Your task to perform on an android device: turn off priority inbox in the gmail app Image 0: 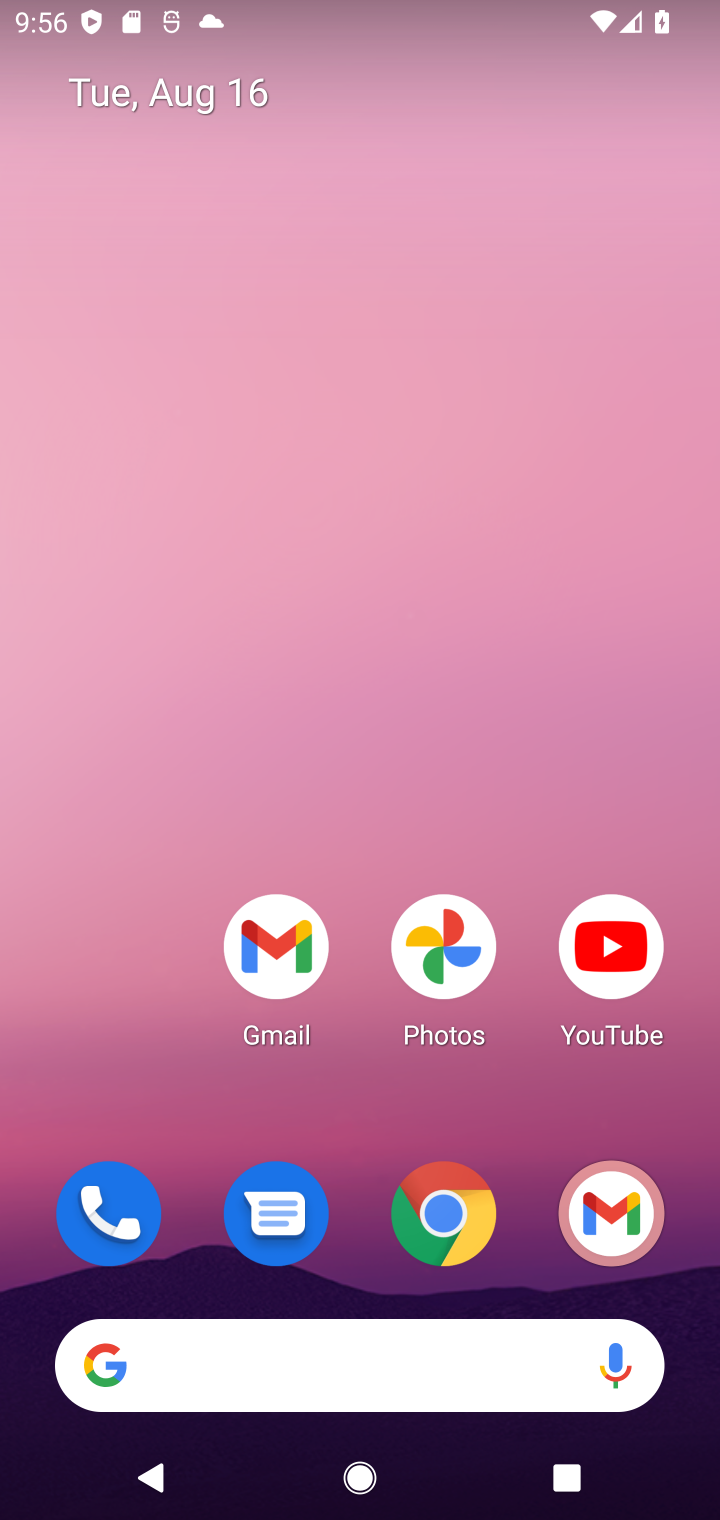
Step 0: drag from (240, 1025) to (242, 548)
Your task to perform on an android device: turn off priority inbox in the gmail app Image 1: 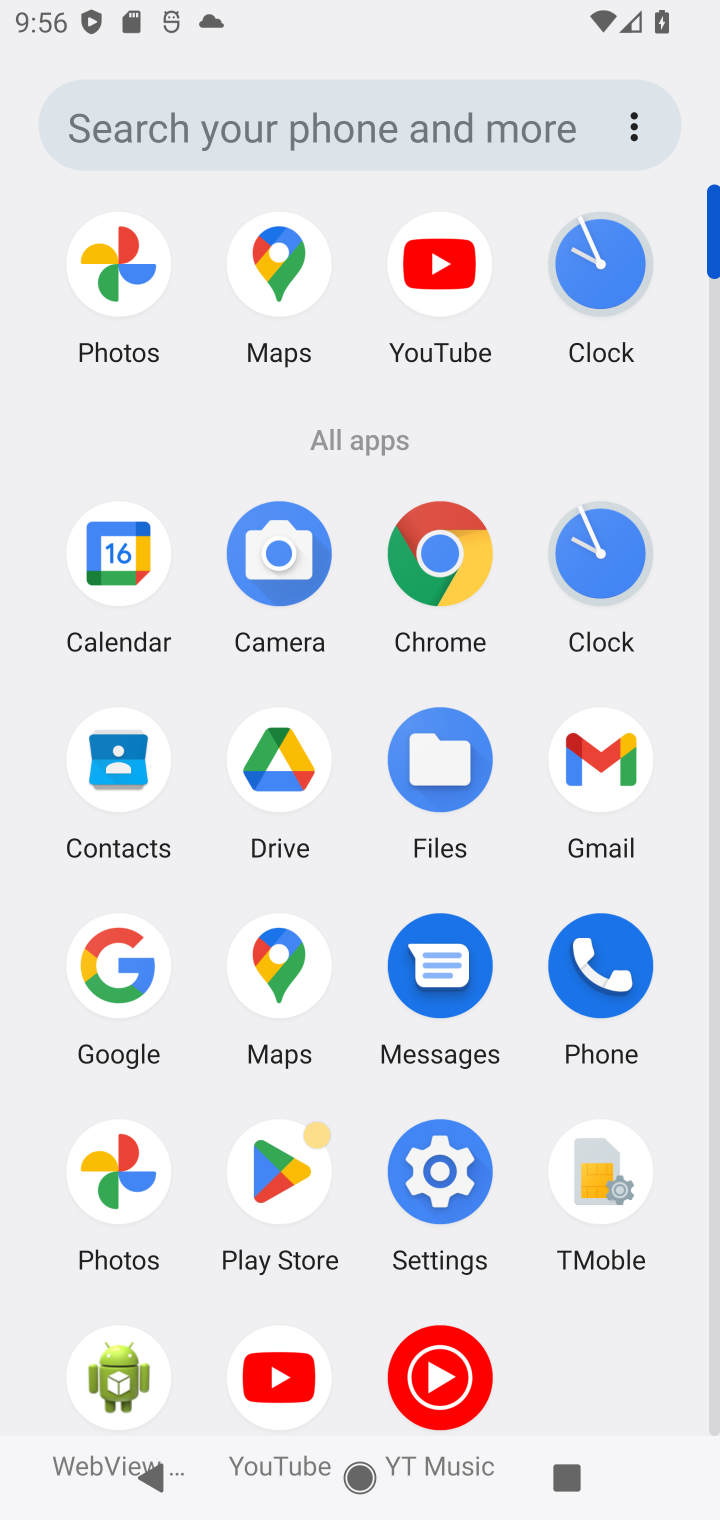
Step 1: click (592, 730)
Your task to perform on an android device: turn off priority inbox in the gmail app Image 2: 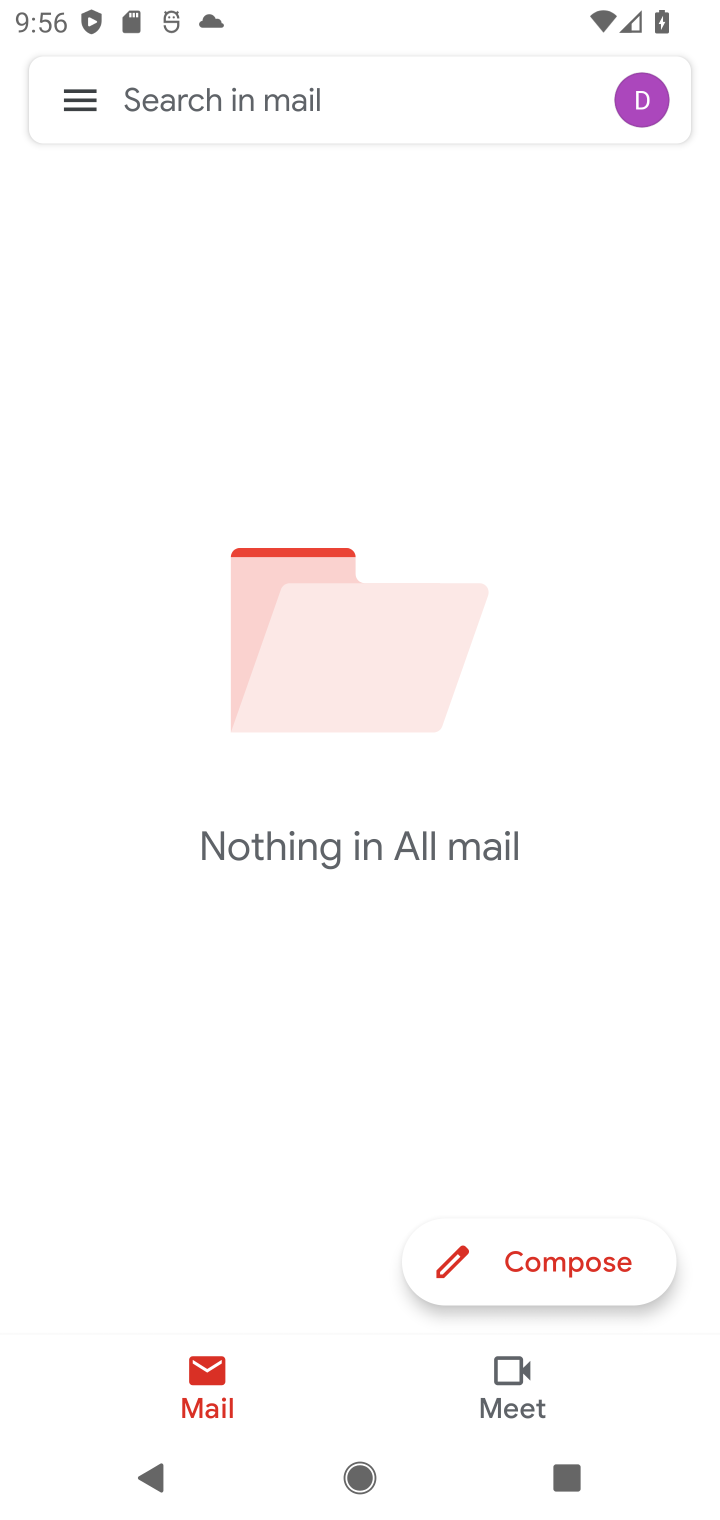
Step 2: click (91, 79)
Your task to perform on an android device: turn off priority inbox in the gmail app Image 3: 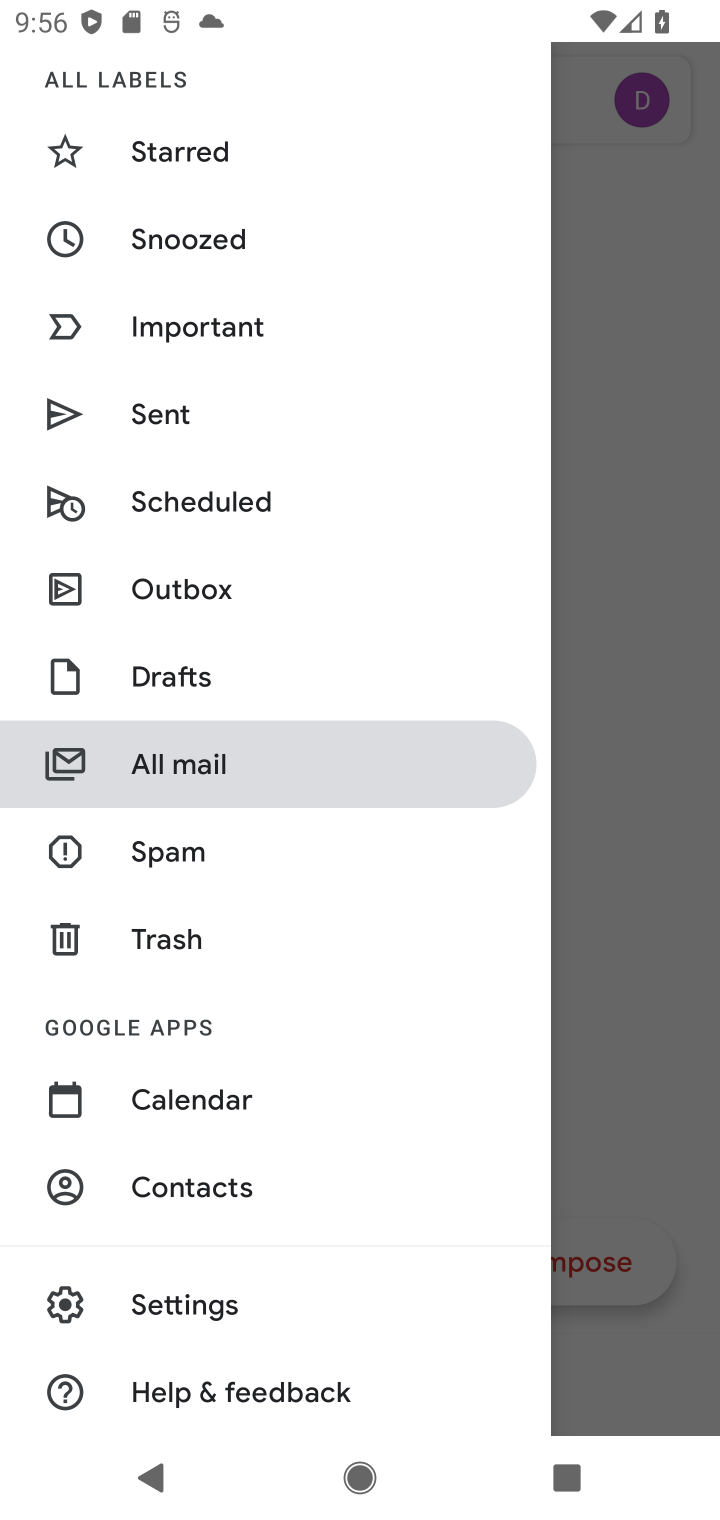
Step 3: click (187, 1308)
Your task to perform on an android device: turn off priority inbox in the gmail app Image 4: 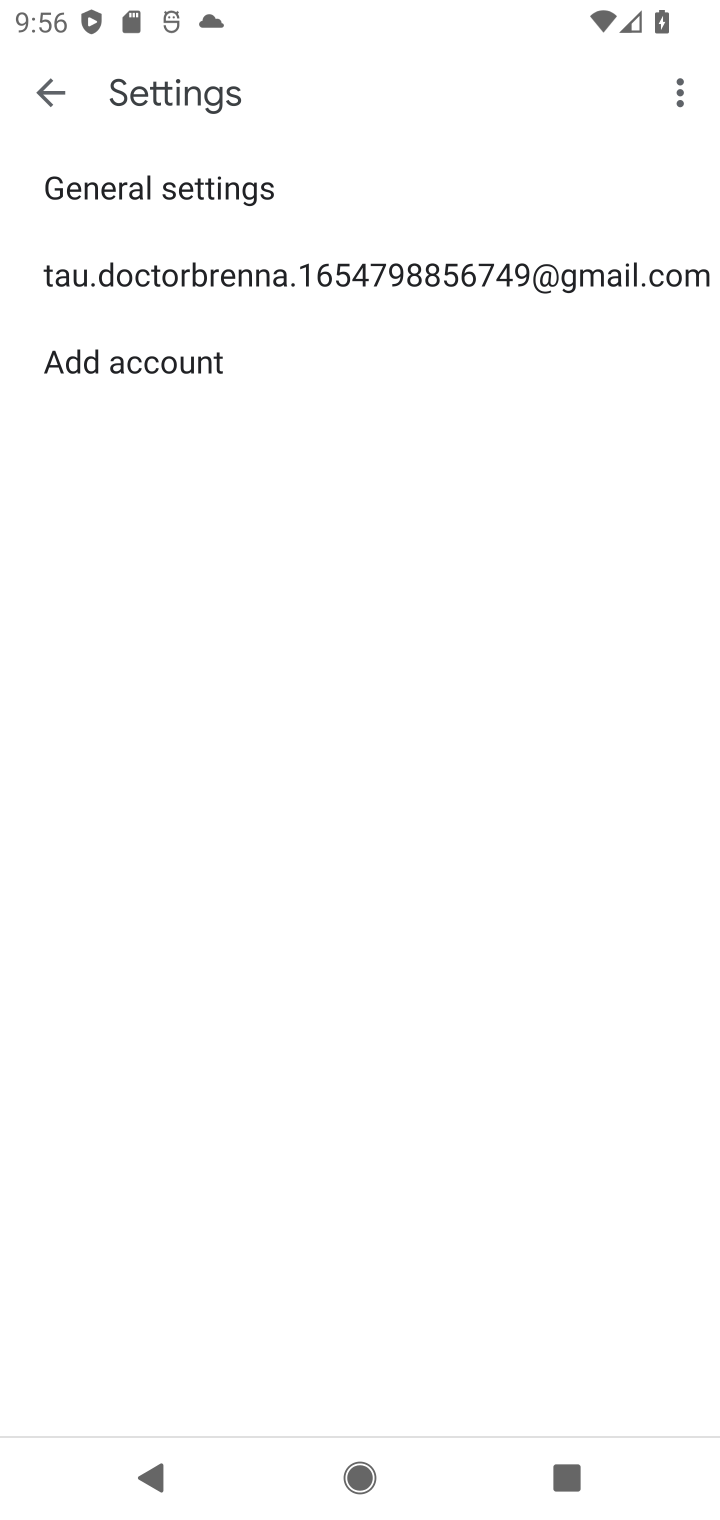
Step 4: click (189, 269)
Your task to perform on an android device: turn off priority inbox in the gmail app Image 5: 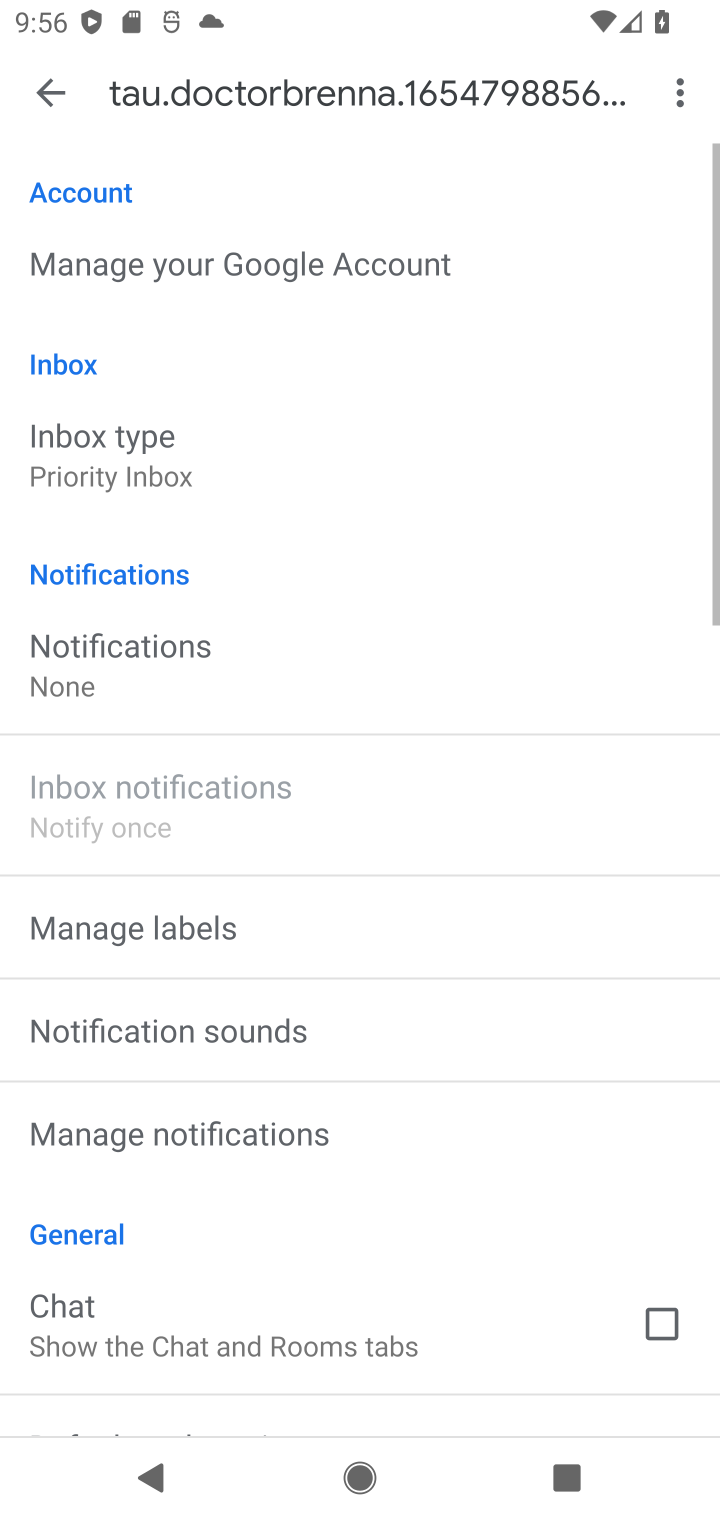
Step 5: click (163, 480)
Your task to perform on an android device: turn off priority inbox in the gmail app Image 6: 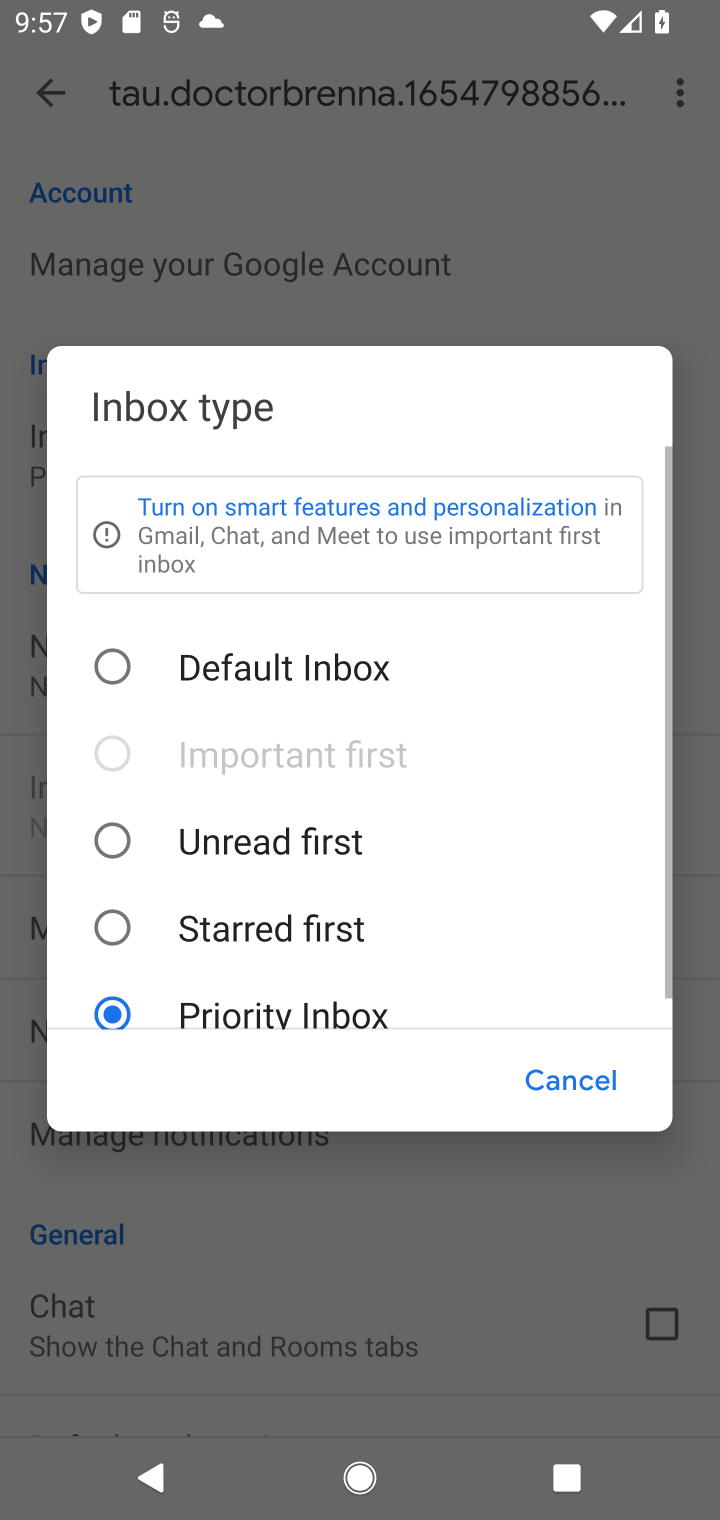
Step 6: click (264, 670)
Your task to perform on an android device: turn off priority inbox in the gmail app Image 7: 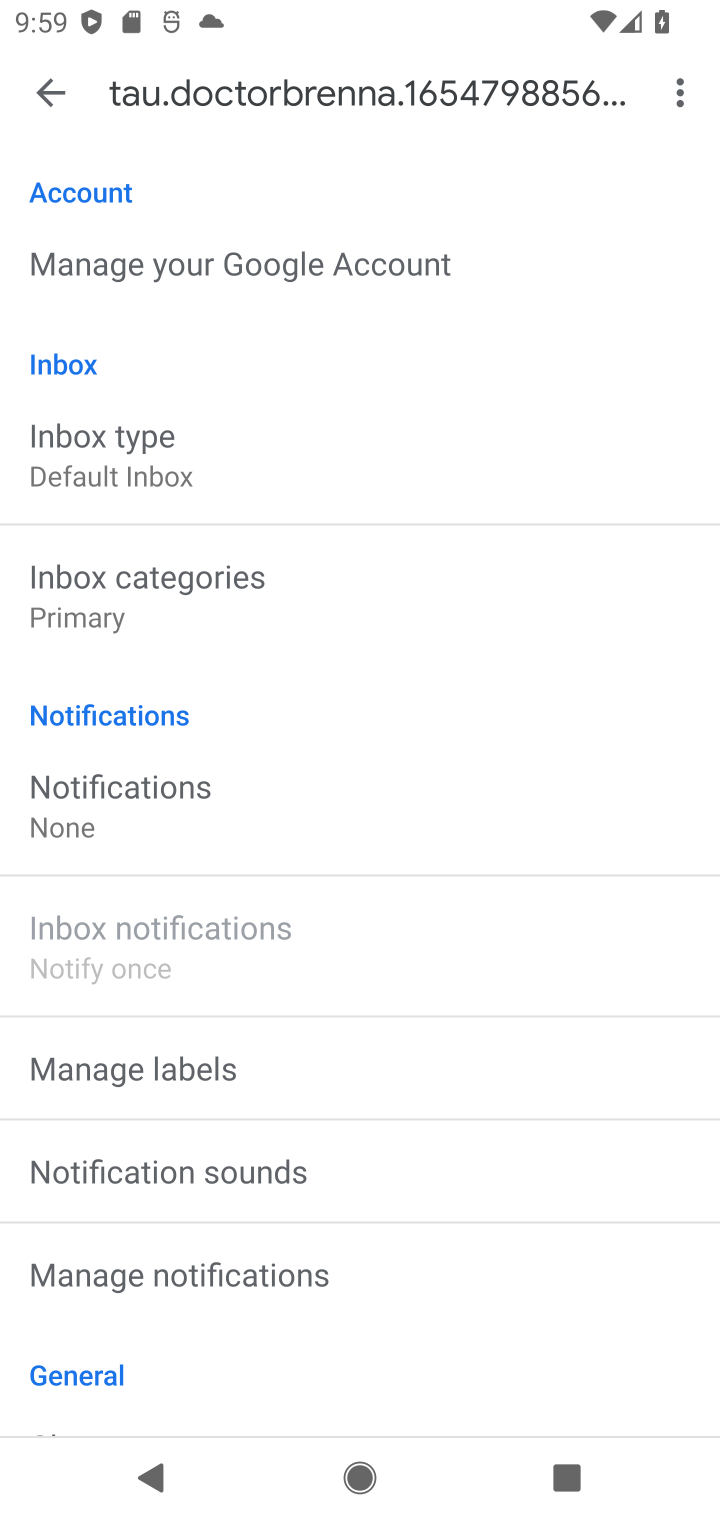
Step 7: task complete